Your task to perform on an android device: Open the calendar and show me this week's events? Image 0: 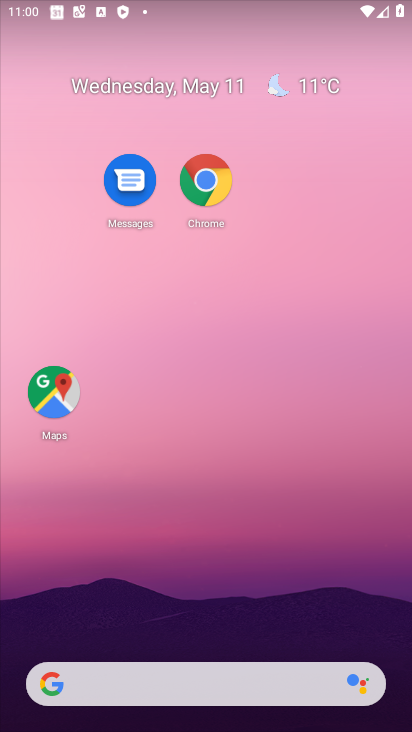
Step 0: drag from (228, 588) to (204, 120)
Your task to perform on an android device: Open the calendar and show me this week's events? Image 1: 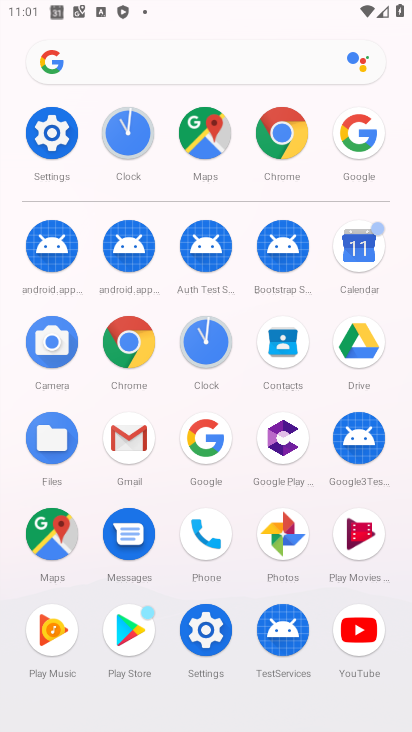
Step 1: click (368, 249)
Your task to perform on an android device: Open the calendar and show me this week's events? Image 2: 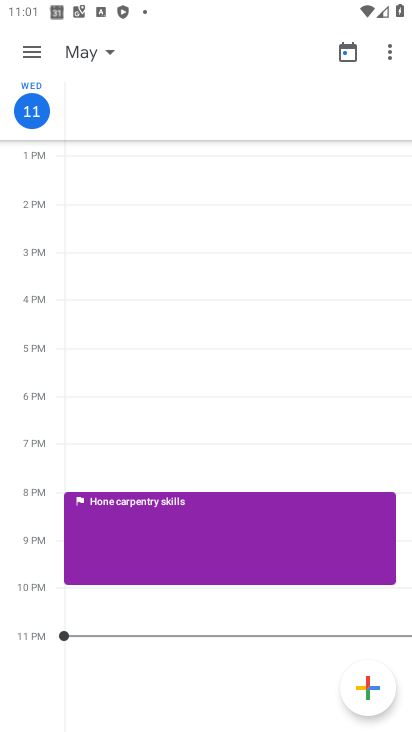
Step 2: click (100, 53)
Your task to perform on an android device: Open the calendar and show me this week's events? Image 3: 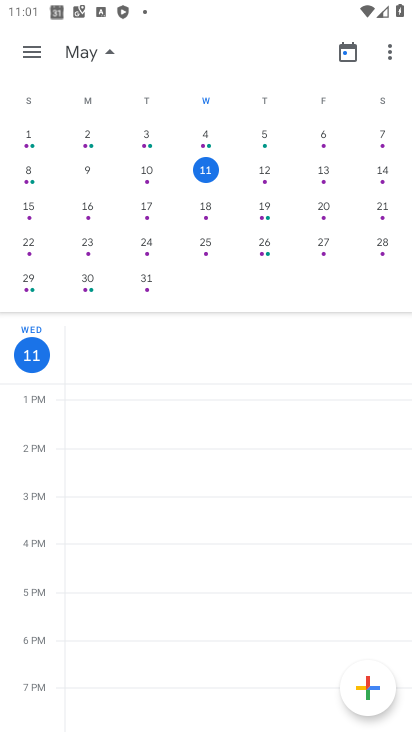
Step 3: click (30, 50)
Your task to perform on an android device: Open the calendar and show me this week's events? Image 4: 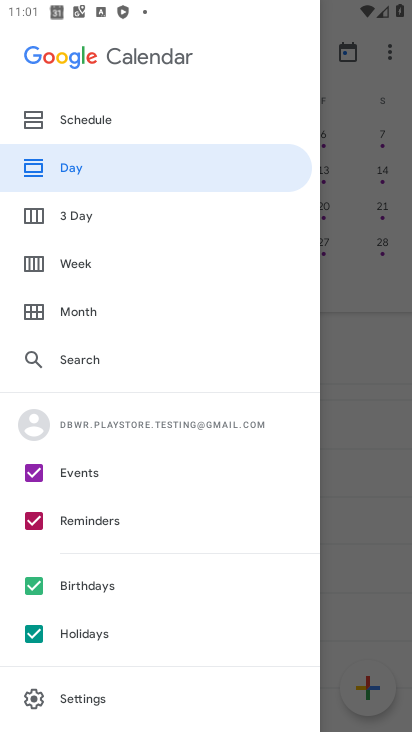
Step 4: click (87, 268)
Your task to perform on an android device: Open the calendar and show me this week's events? Image 5: 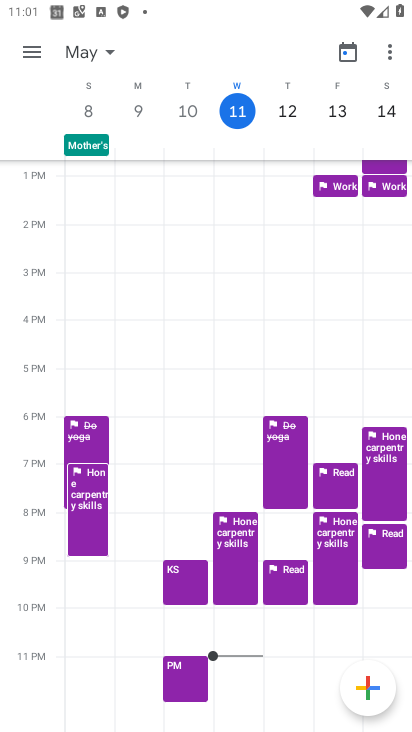
Step 5: task complete